Your task to perform on an android device: Play the last video I watched on Youtube Image 0: 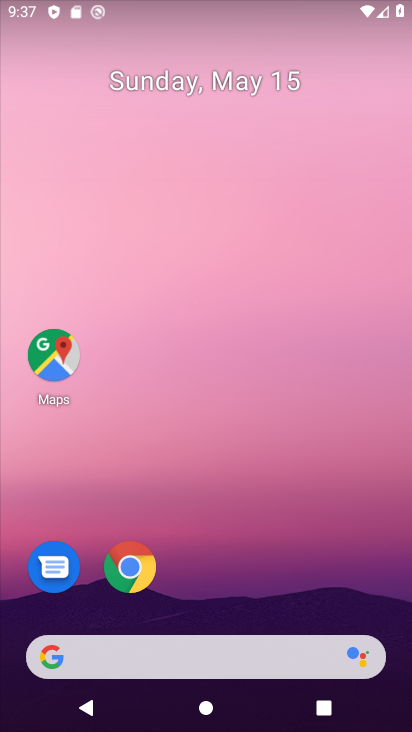
Step 0: drag from (242, 556) to (210, 138)
Your task to perform on an android device: Play the last video I watched on Youtube Image 1: 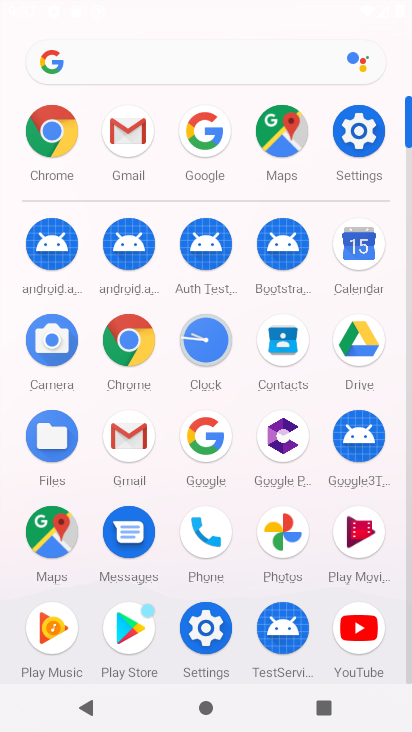
Step 1: click (353, 623)
Your task to perform on an android device: Play the last video I watched on Youtube Image 2: 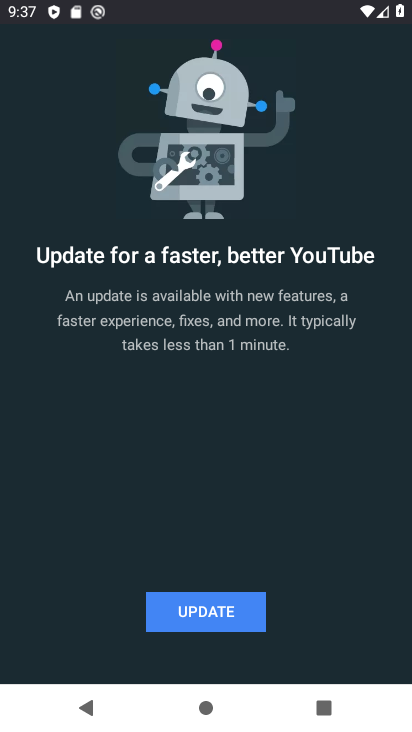
Step 2: click (205, 620)
Your task to perform on an android device: Play the last video I watched on Youtube Image 3: 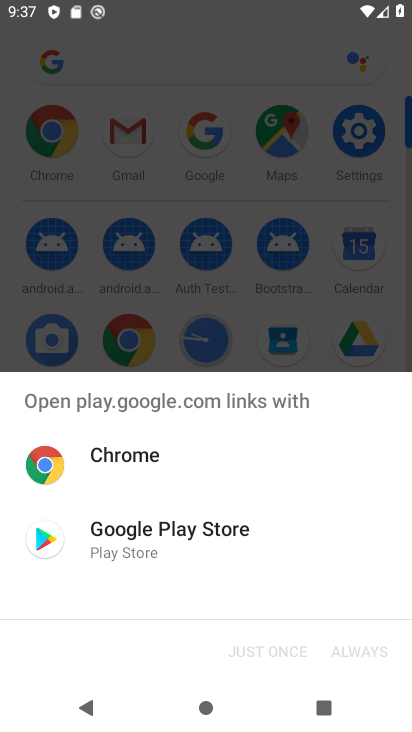
Step 3: click (134, 527)
Your task to perform on an android device: Play the last video I watched on Youtube Image 4: 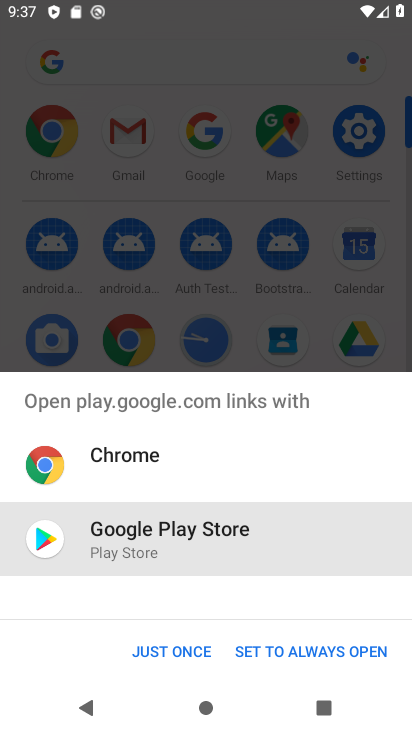
Step 4: click (165, 646)
Your task to perform on an android device: Play the last video I watched on Youtube Image 5: 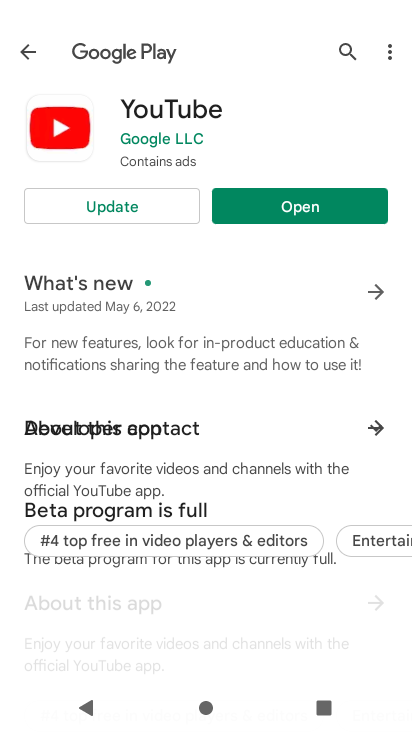
Step 5: click (140, 207)
Your task to perform on an android device: Play the last video I watched on Youtube Image 6: 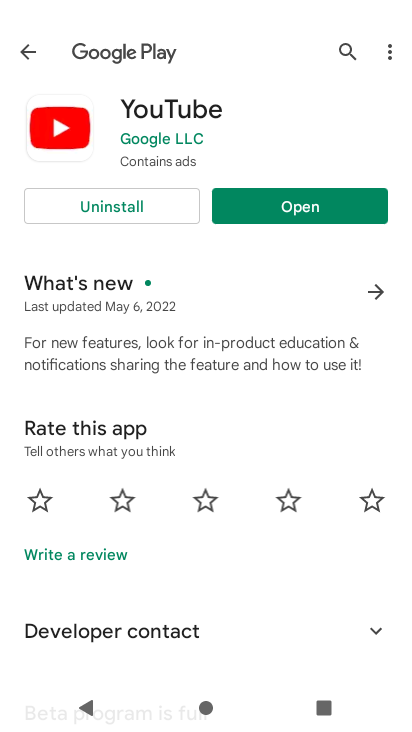
Step 6: click (313, 199)
Your task to perform on an android device: Play the last video I watched on Youtube Image 7: 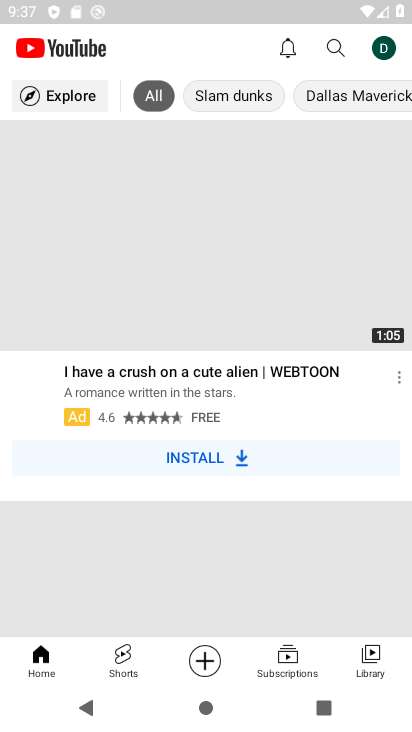
Step 7: click (336, 44)
Your task to perform on an android device: Play the last video I watched on Youtube Image 8: 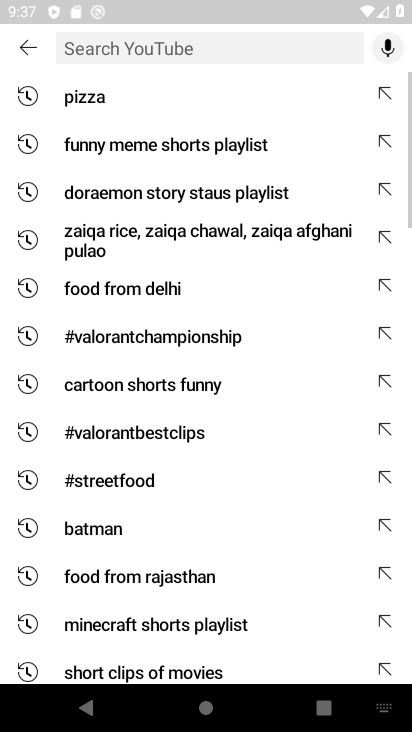
Step 8: click (99, 89)
Your task to perform on an android device: Play the last video I watched on Youtube Image 9: 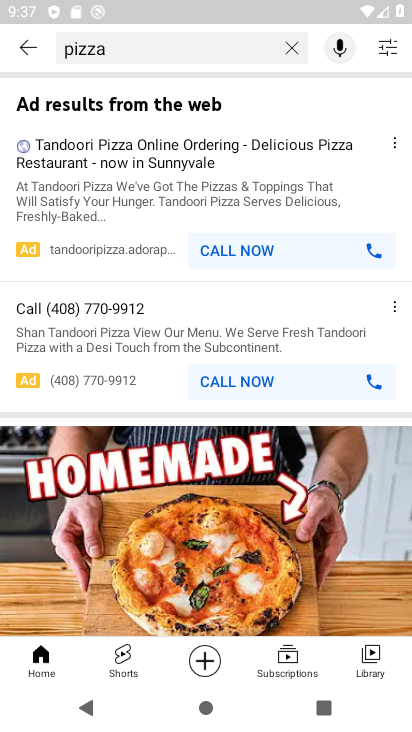
Step 9: click (191, 498)
Your task to perform on an android device: Play the last video I watched on Youtube Image 10: 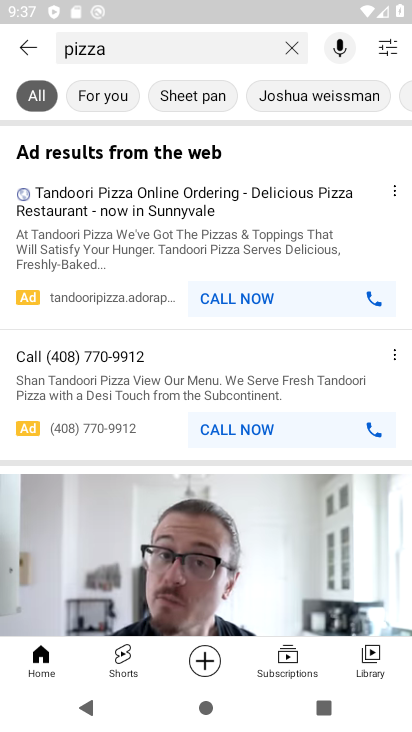
Step 10: drag from (260, 471) to (253, 256)
Your task to perform on an android device: Play the last video I watched on Youtube Image 11: 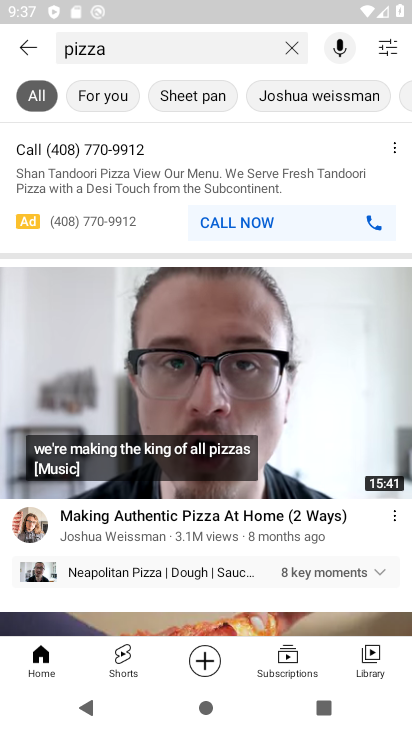
Step 11: click (238, 383)
Your task to perform on an android device: Play the last video I watched on Youtube Image 12: 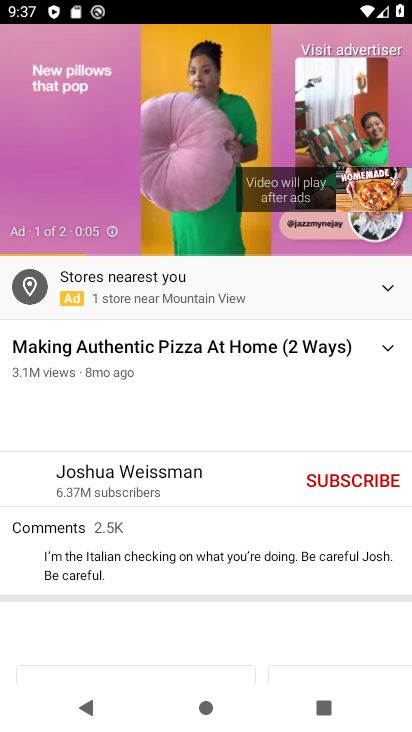
Step 12: task complete